Your task to perform on an android device: Do I have any events this weekend? Image 0: 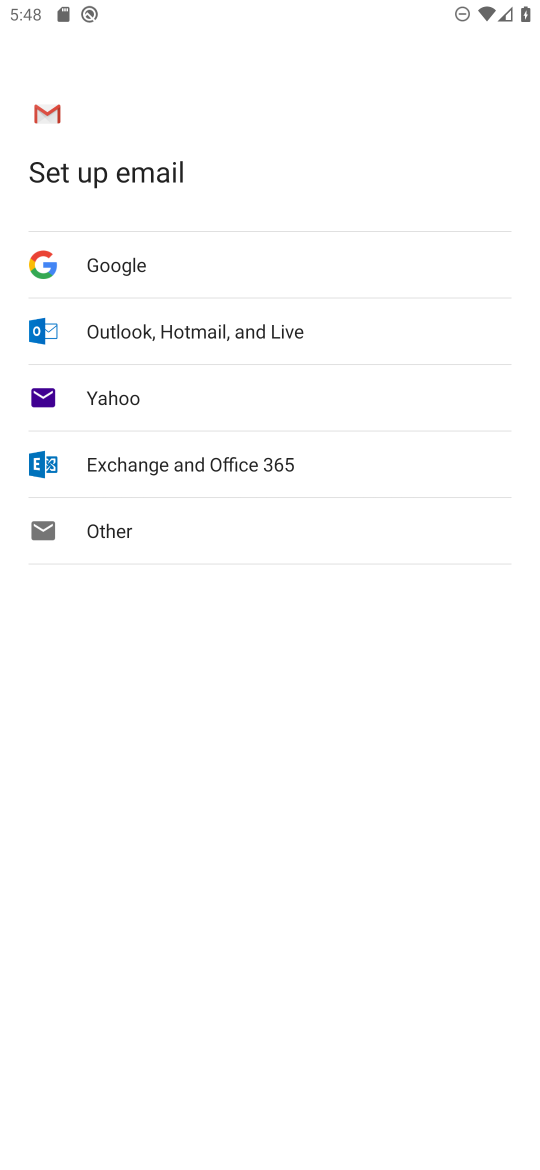
Step 0: press home button
Your task to perform on an android device: Do I have any events this weekend? Image 1: 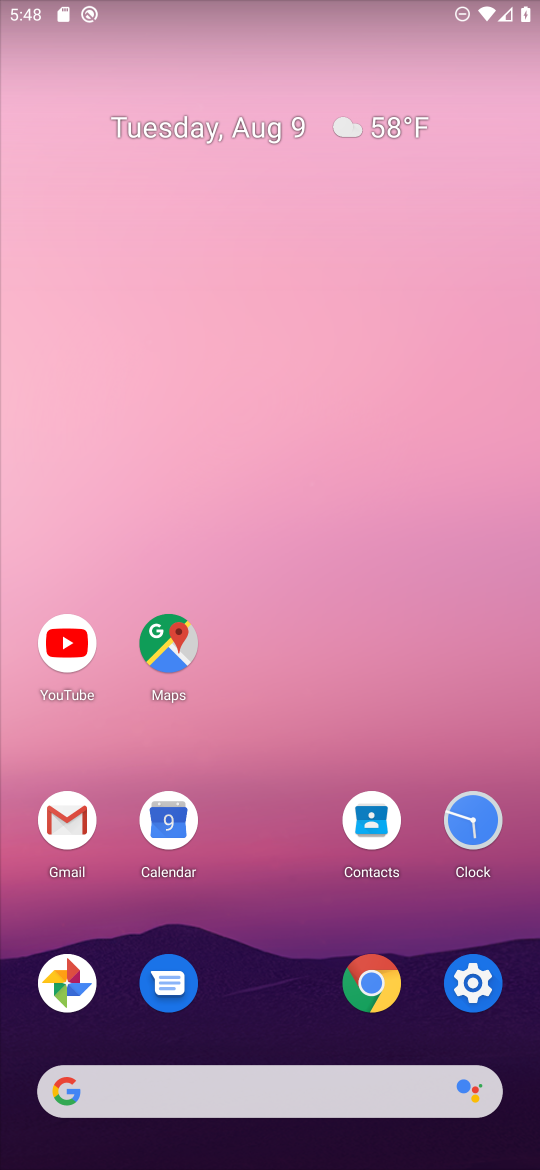
Step 1: click (163, 816)
Your task to perform on an android device: Do I have any events this weekend? Image 2: 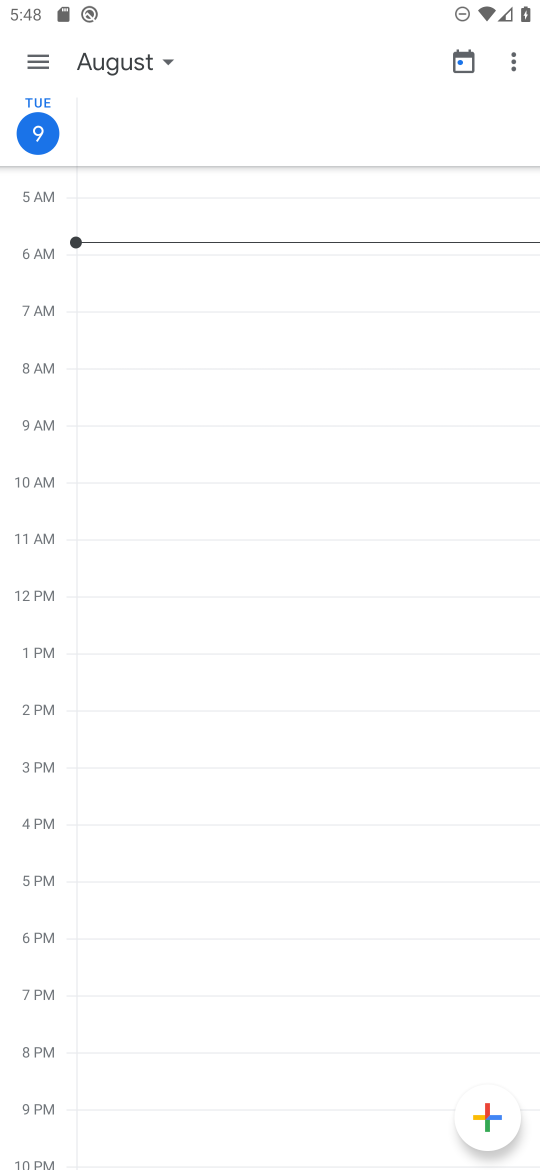
Step 2: click (43, 47)
Your task to perform on an android device: Do I have any events this weekend? Image 3: 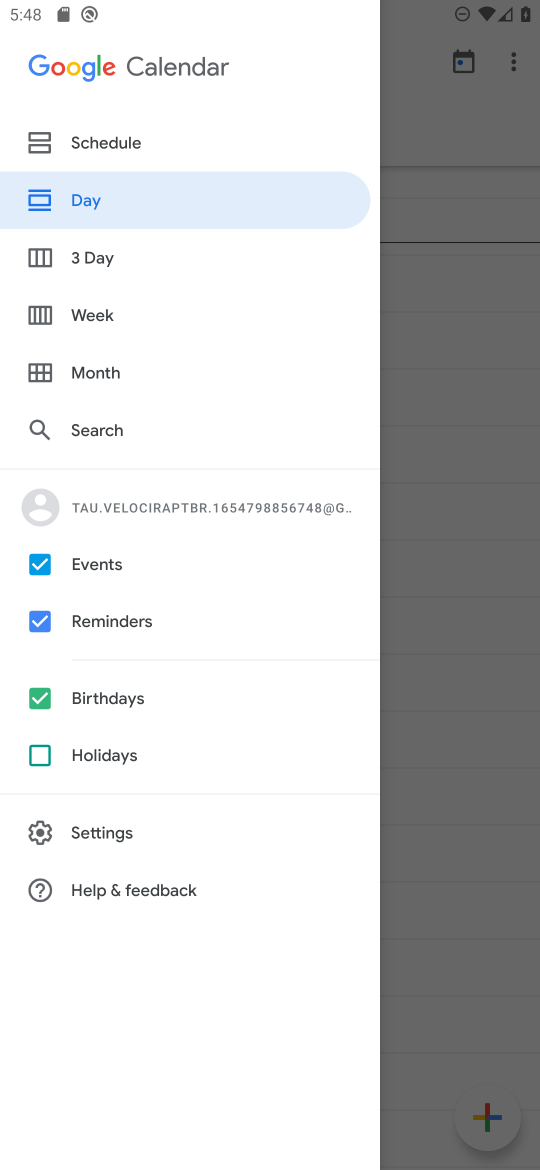
Step 3: click (84, 300)
Your task to perform on an android device: Do I have any events this weekend? Image 4: 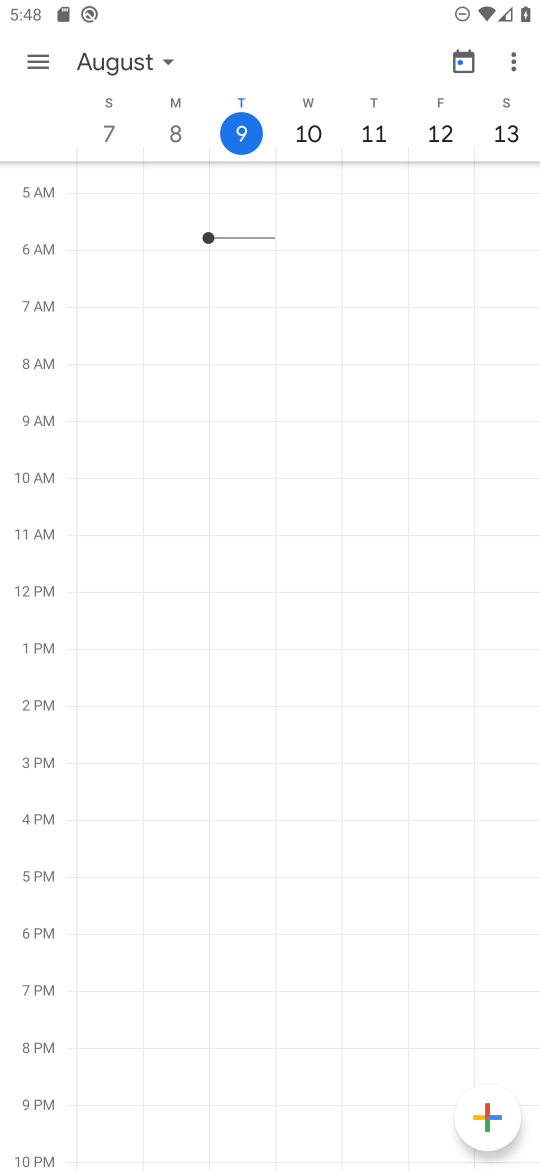
Step 4: task complete